Your task to perform on an android device: Open Google Chrome and click the shortcut for Amazon.com Image 0: 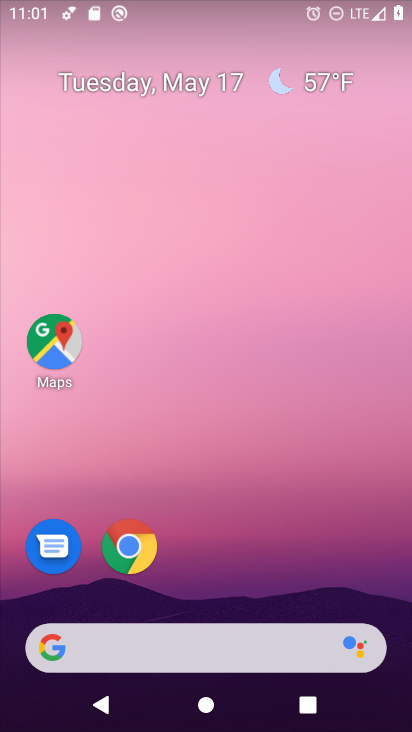
Step 0: click (116, 550)
Your task to perform on an android device: Open Google Chrome and click the shortcut for Amazon.com Image 1: 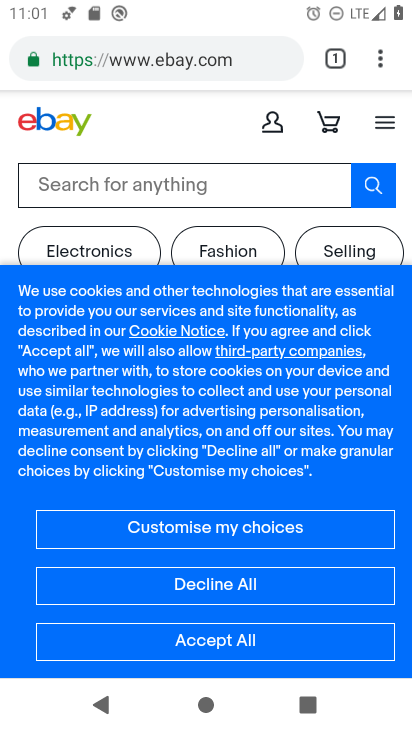
Step 1: click (383, 54)
Your task to perform on an android device: Open Google Chrome and click the shortcut for Amazon.com Image 2: 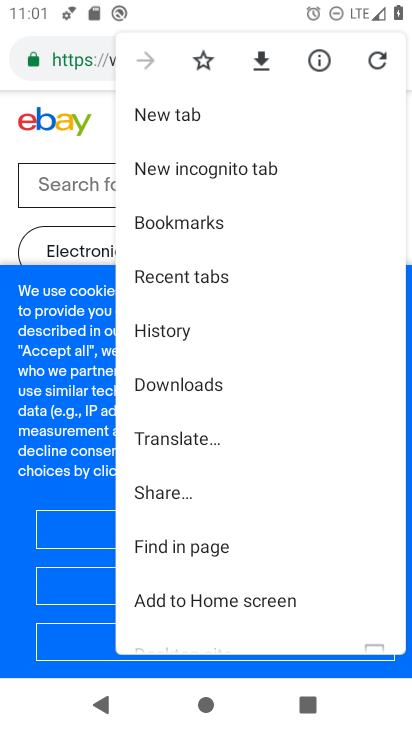
Step 2: click (201, 119)
Your task to perform on an android device: Open Google Chrome and click the shortcut for Amazon.com Image 3: 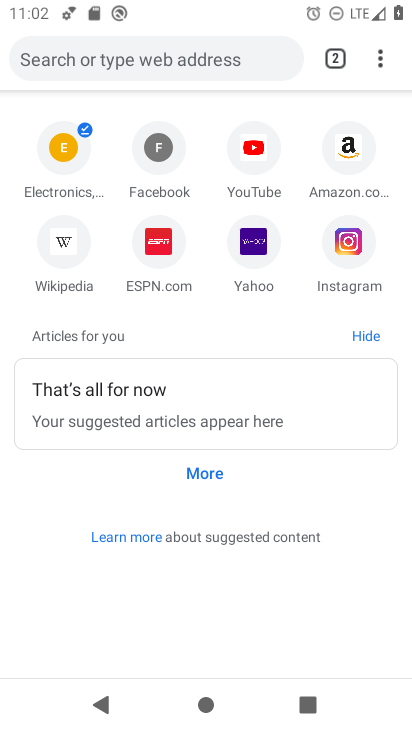
Step 3: click (345, 164)
Your task to perform on an android device: Open Google Chrome and click the shortcut for Amazon.com Image 4: 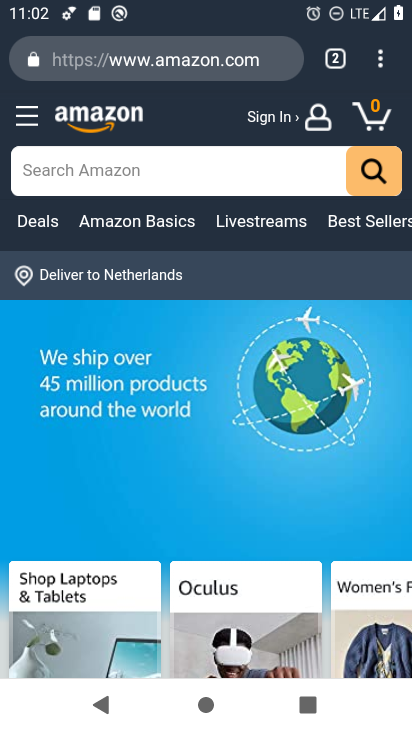
Step 4: task complete